Your task to perform on an android device: change timer sound Image 0: 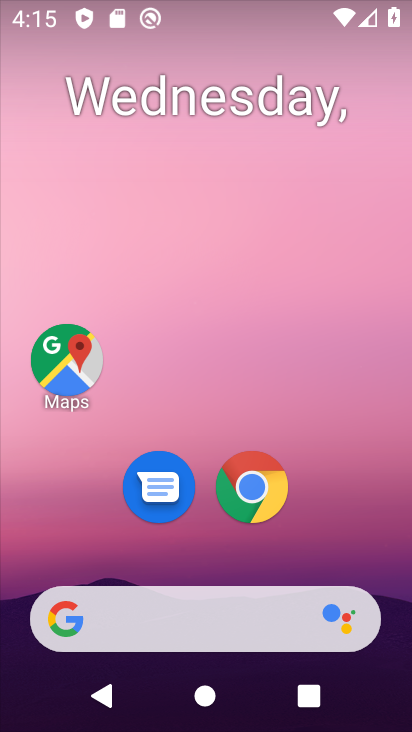
Step 0: drag from (204, 551) to (255, 91)
Your task to perform on an android device: change timer sound Image 1: 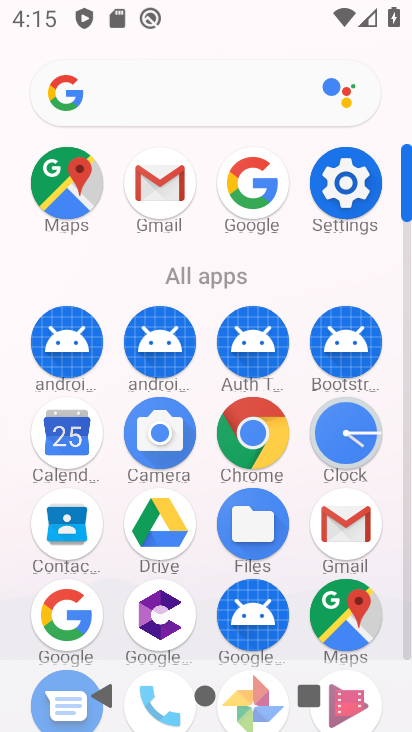
Step 1: drag from (203, 585) to (199, 147)
Your task to perform on an android device: change timer sound Image 2: 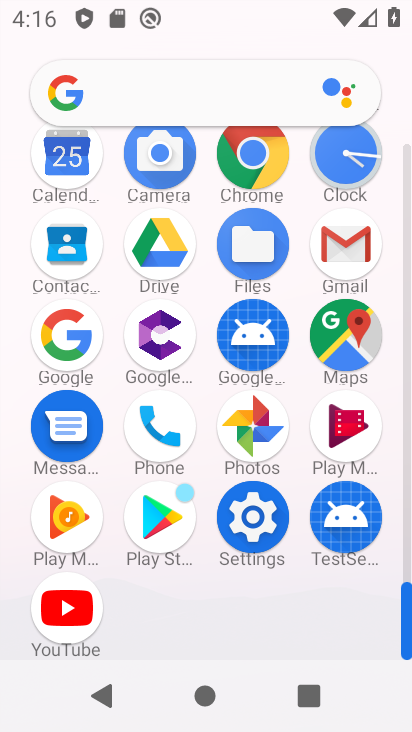
Step 2: click (350, 149)
Your task to perform on an android device: change timer sound Image 3: 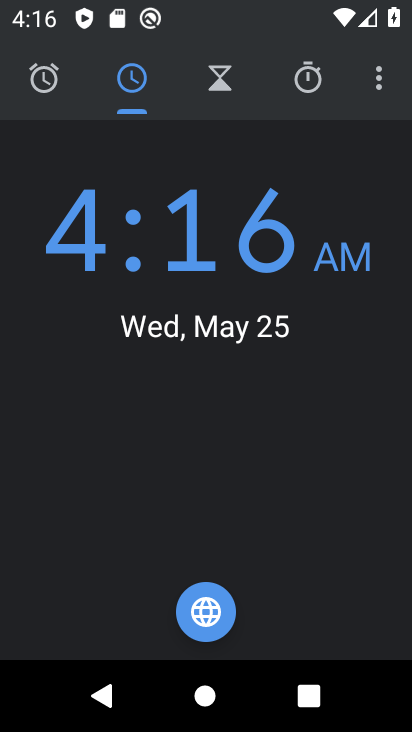
Step 3: click (380, 79)
Your task to perform on an android device: change timer sound Image 4: 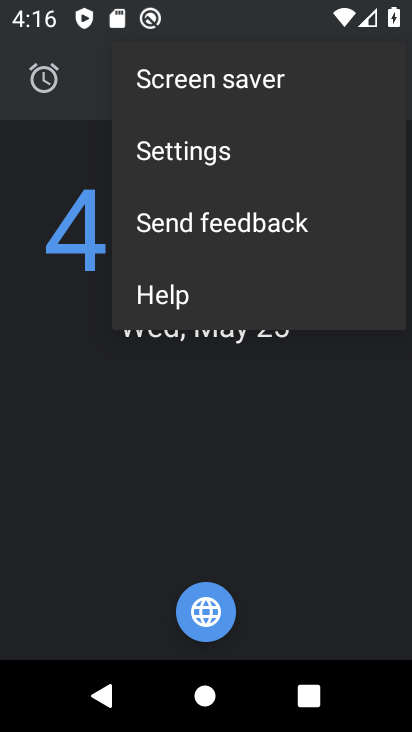
Step 4: click (278, 145)
Your task to perform on an android device: change timer sound Image 5: 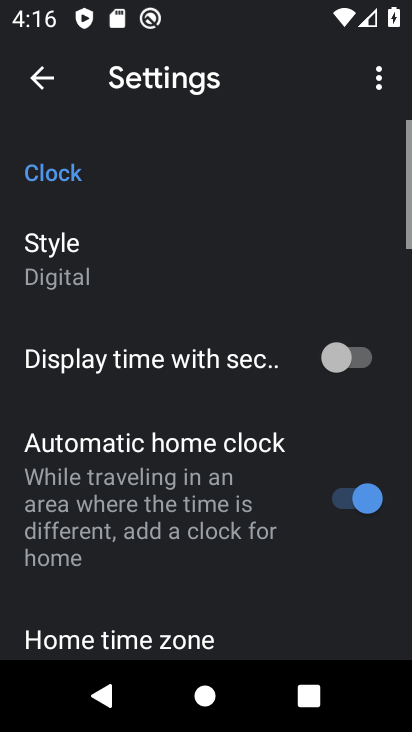
Step 5: drag from (223, 595) to (300, 126)
Your task to perform on an android device: change timer sound Image 6: 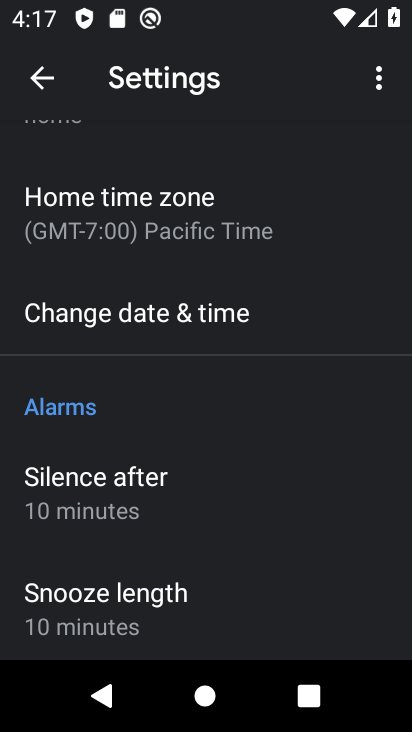
Step 6: drag from (185, 549) to (210, 93)
Your task to perform on an android device: change timer sound Image 7: 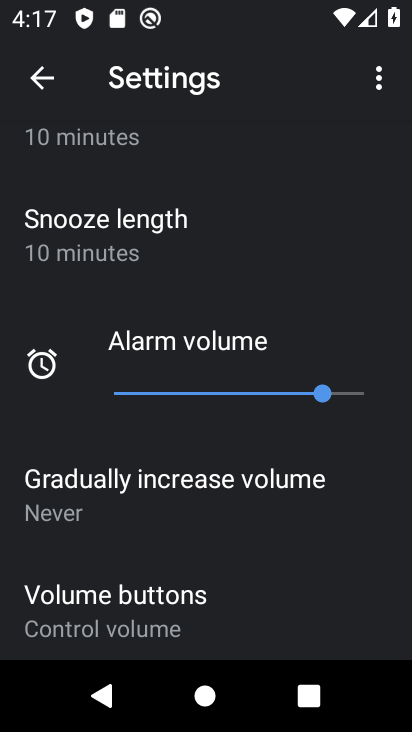
Step 7: drag from (196, 552) to (214, 73)
Your task to perform on an android device: change timer sound Image 8: 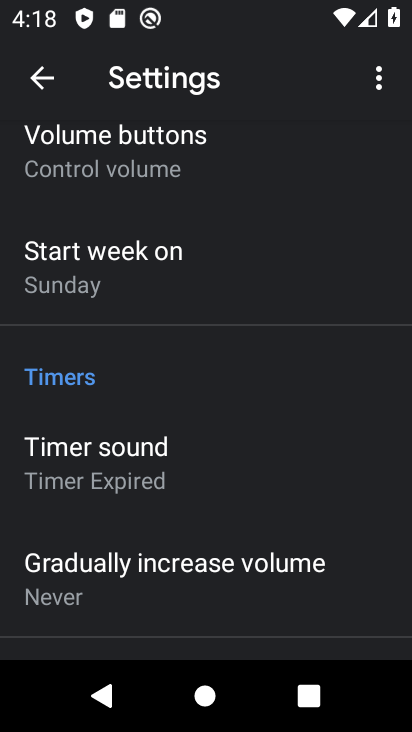
Step 8: click (190, 467)
Your task to perform on an android device: change timer sound Image 9: 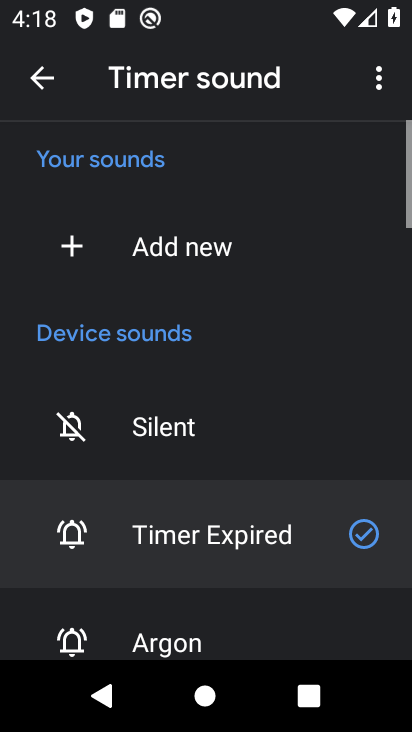
Step 9: click (246, 628)
Your task to perform on an android device: change timer sound Image 10: 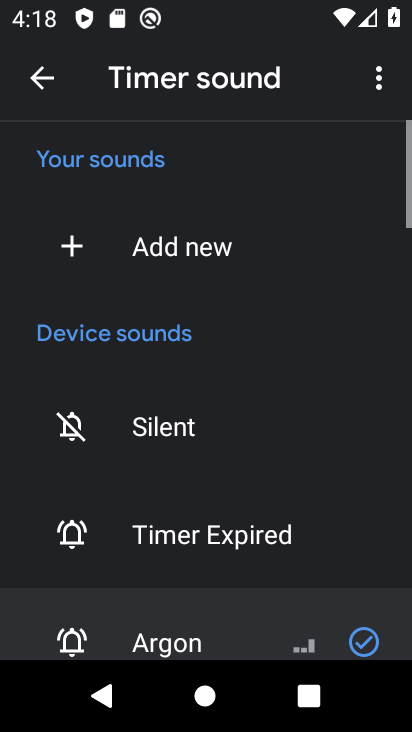
Step 10: task complete